Your task to perform on an android device: change alarm snooze length Image 0: 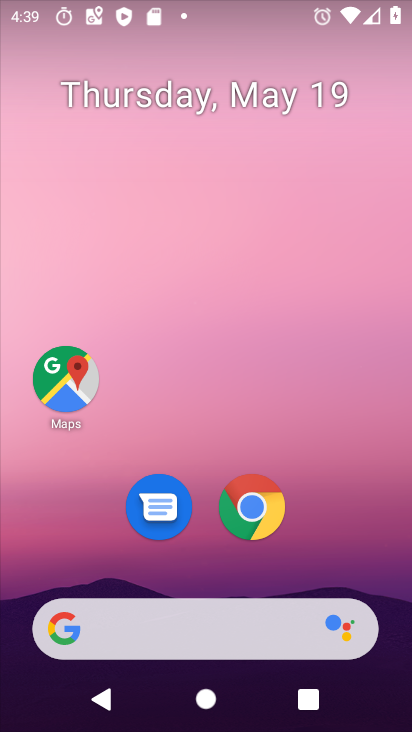
Step 0: drag from (400, 666) to (354, 202)
Your task to perform on an android device: change alarm snooze length Image 1: 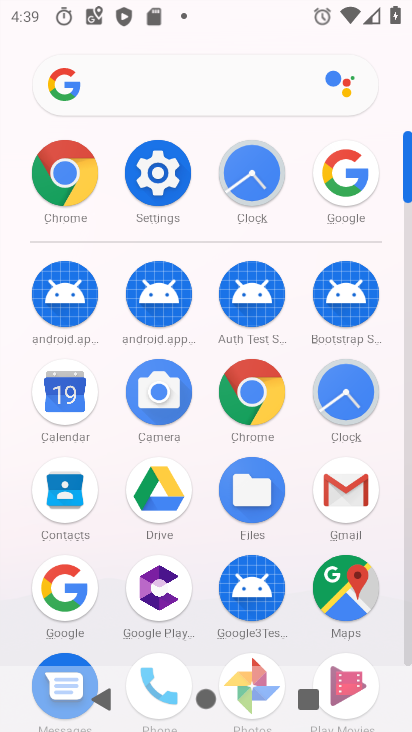
Step 1: click (347, 392)
Your task to perform on an android device: change alarm snooze length Image 2: 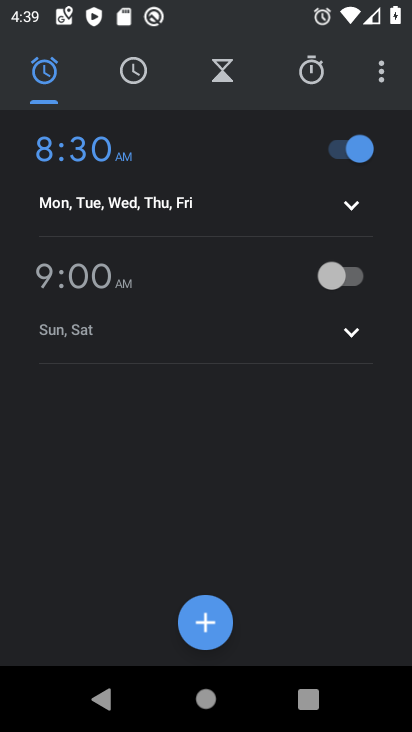
Step 2: click (381, 74)
Your task to perform on an android device: change alarm snooze length Image 3: 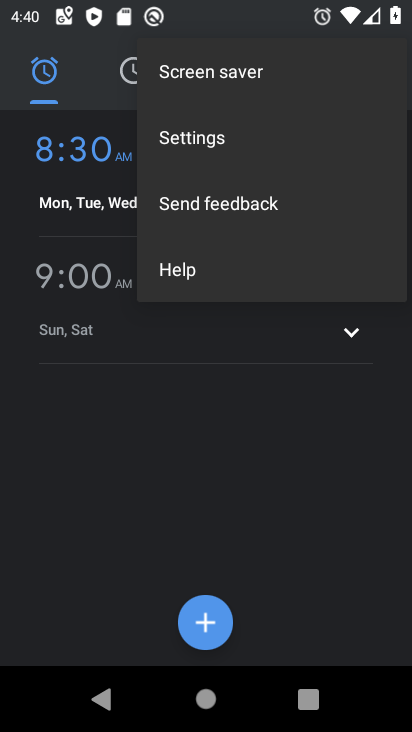
Step 3: click (186, 134)
Your task to perform on an android device: change alarm snooze length Image 4: 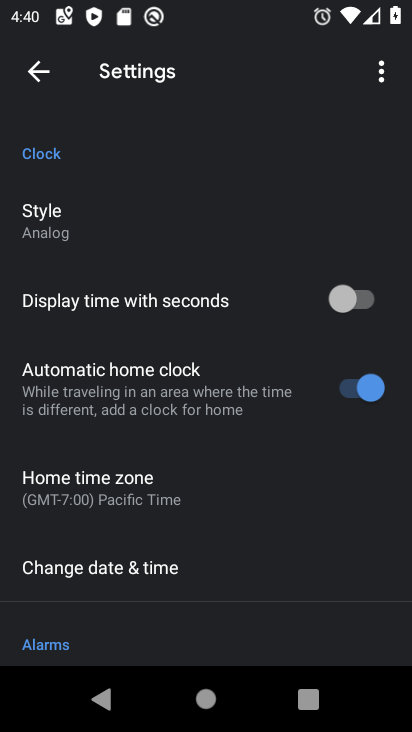
Step 4: drag from (221, 527) to (194, 291)
Your task to perform on an android device: change alarm snooze length Image 5: 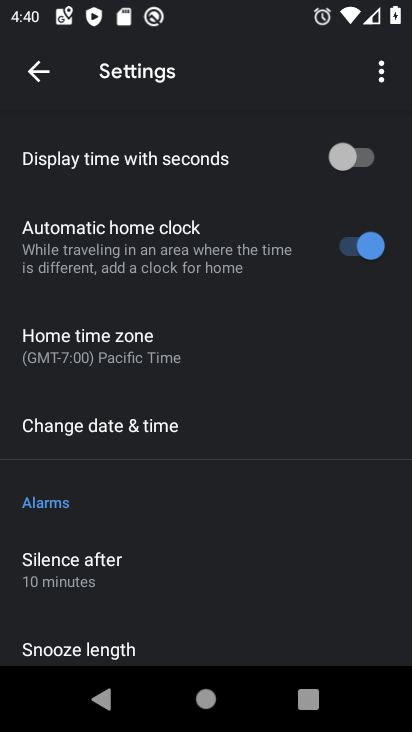
Step 5: drag from (227, 552) to (228, 319)
Your task to perform on an android device: change alarm snooze length Image 6: 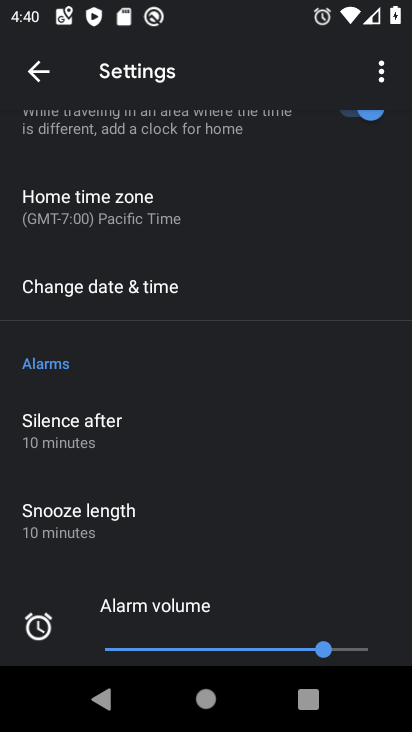
Step 6: click (89, 511)
Your task to perform on an android device: change alarm snooze length Image 7: 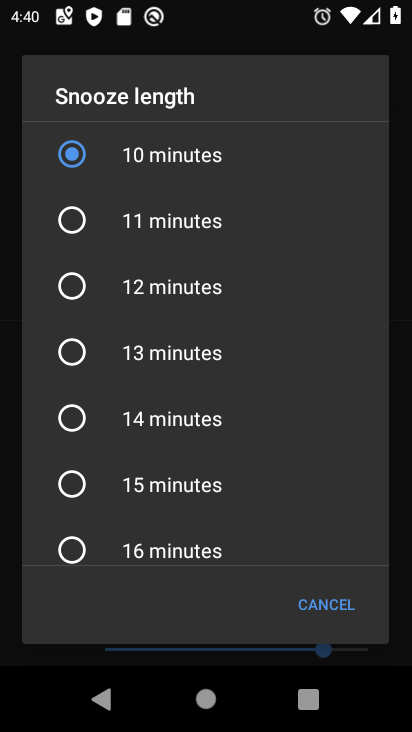
Step 7: click (76, 288)
Your task to perform on an android device: change alarm snooze length Image 8: 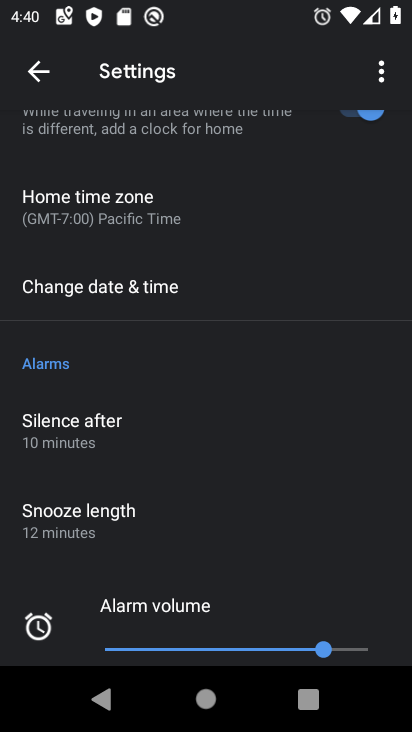
Step 8: task complete